Your task to perform on an android device: Go to Android settings Image 0: 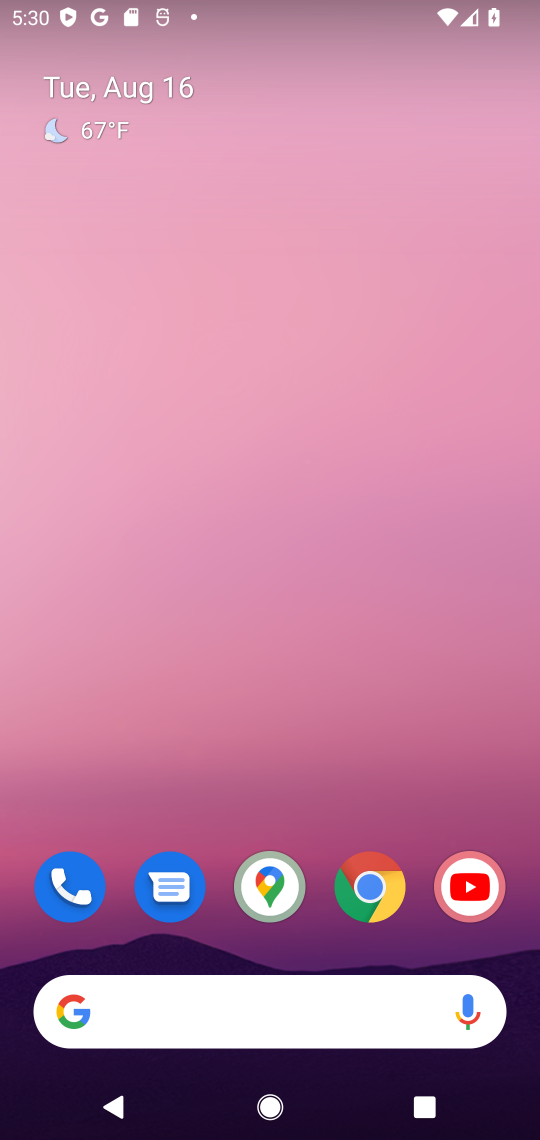
Step 0: drag from (273, 775) to (372, 7)
Your task to perform on an android device: Go to Android settings Image 1: 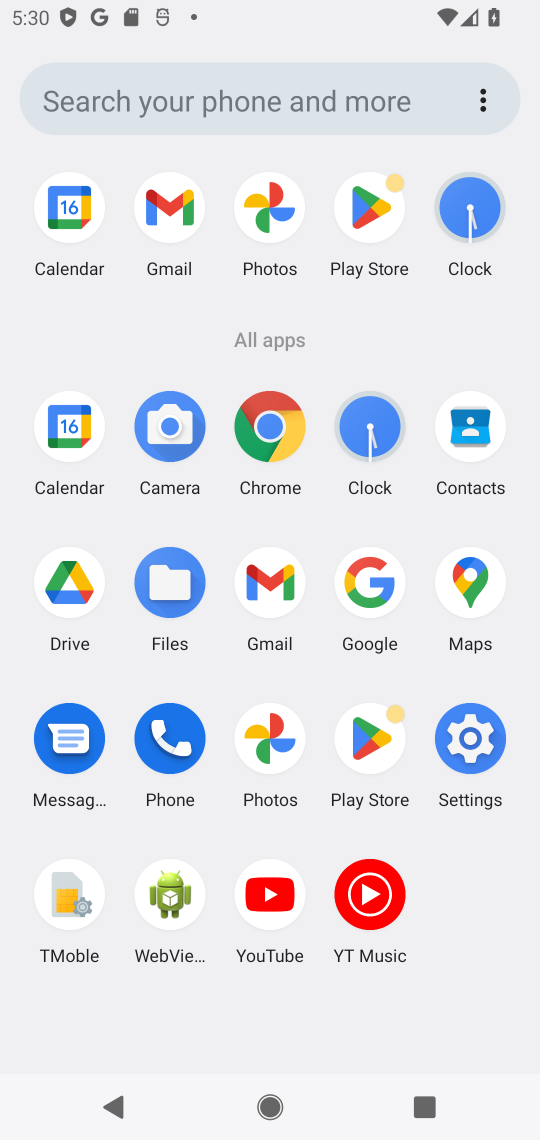
Step 1: click (466, 738)
Your task to perform on an android device: Go to Android settings Image 2: 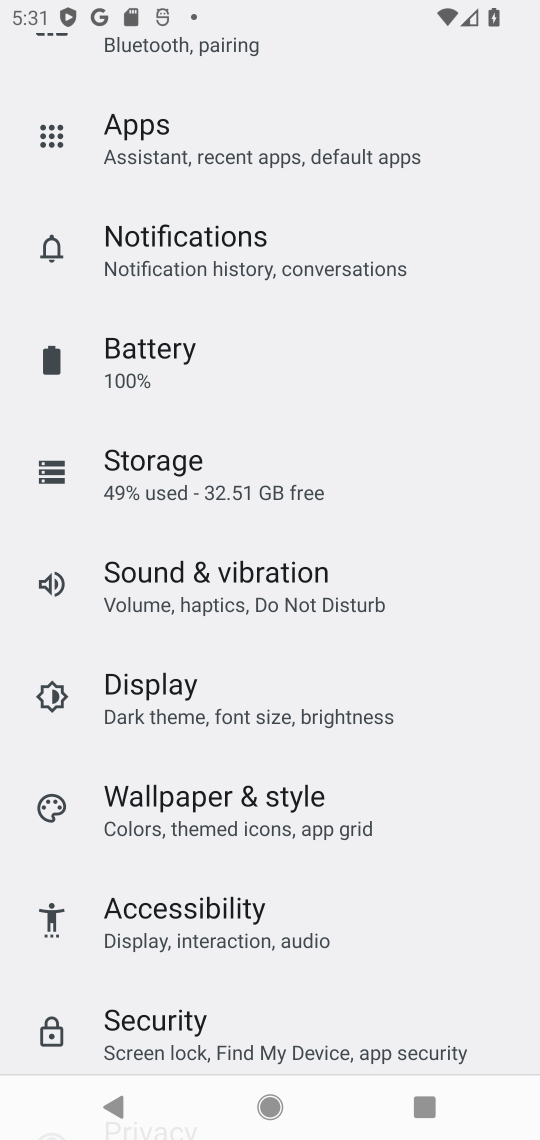
Step 2: task complete